Your task to perform on an android device: change the clock display to digital Image 0: 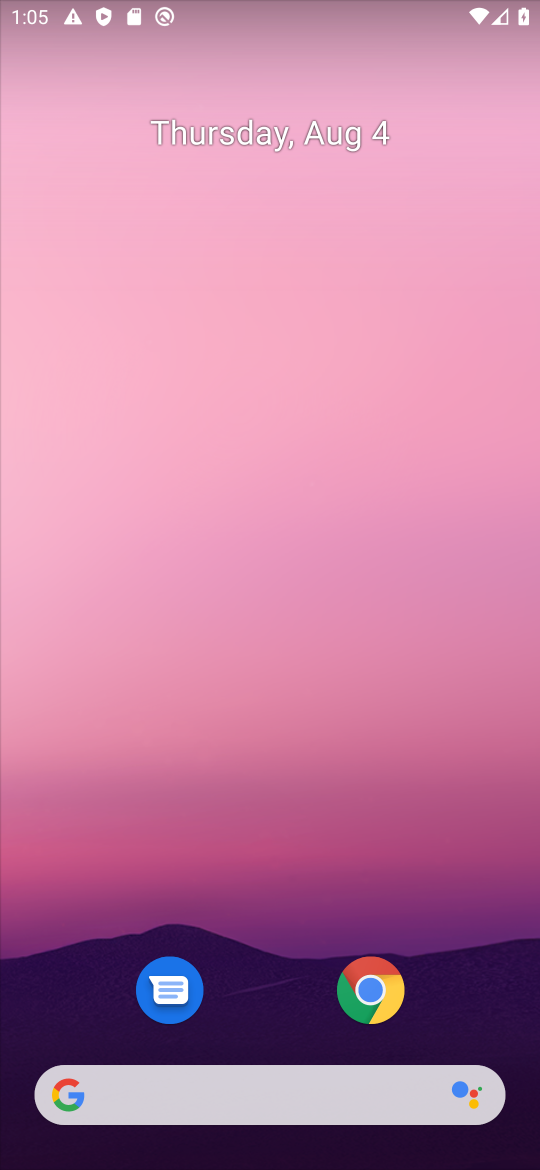
Step 0: drag from (269, 1017) to (304, 290)
Your task to perform on an android device: change the clock display to digital Image 1: 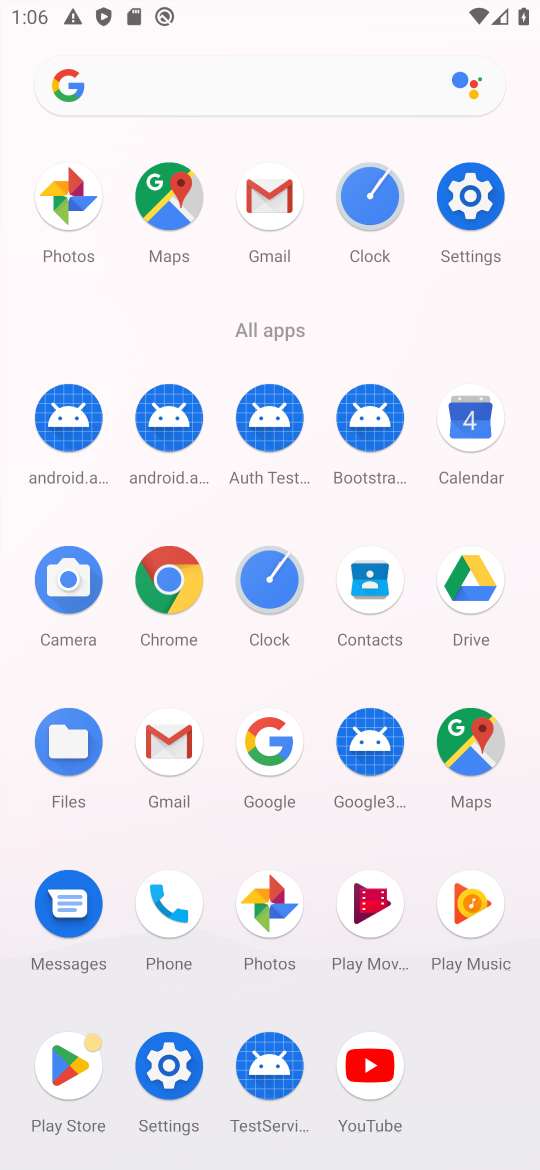
Step 1: click (401, 192)
Your task to perform on an android device: change the clock display to digital Image 2: 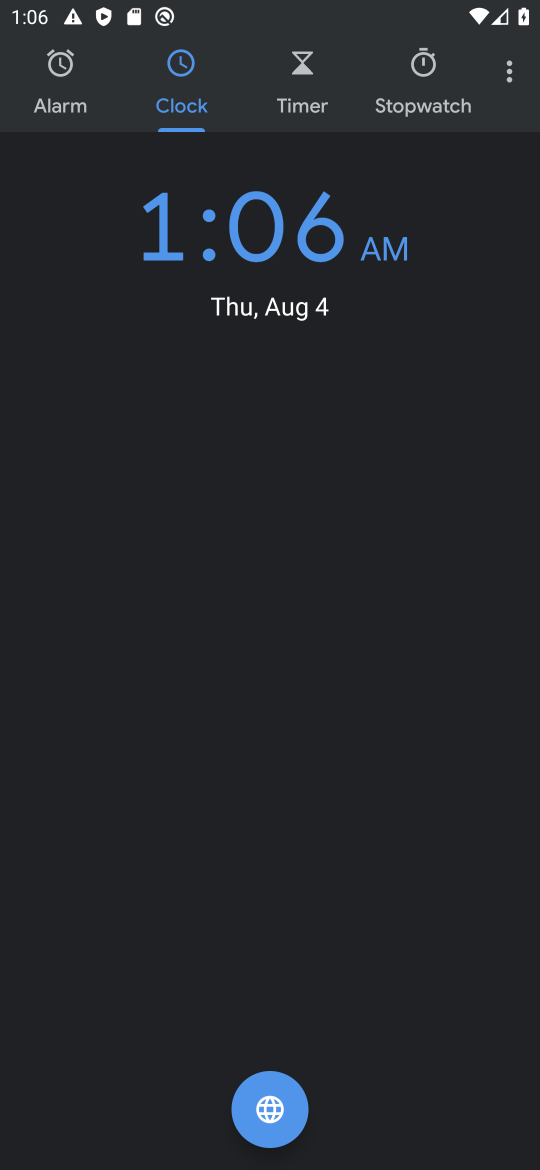
Step 2: click (500, 84)
Your task to perform on an android device: change the clock display to digital Image 3: 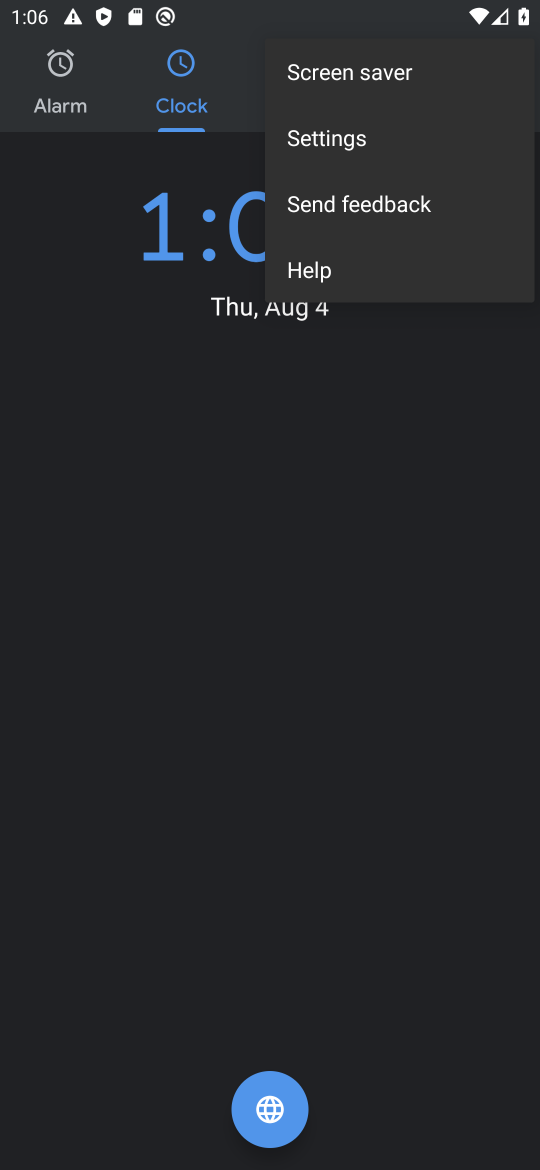
Step 3: click (427, 137)
Your task to perform on an android device: change the clock display to digital Image 4: 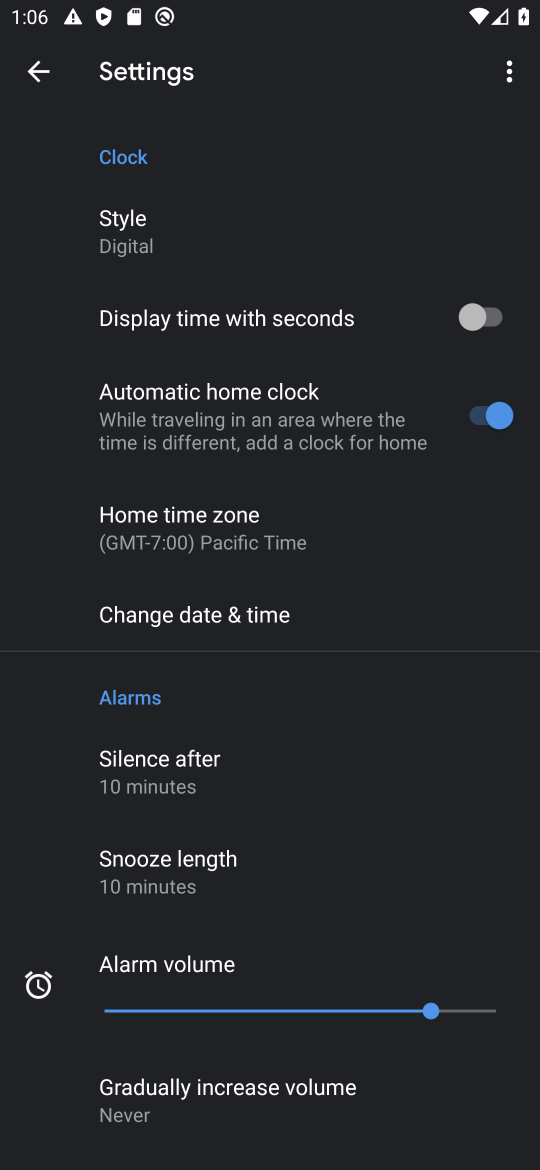
Step 4: task complete